Your task to perform on an android device: What's the news in Barbados? Image 0: 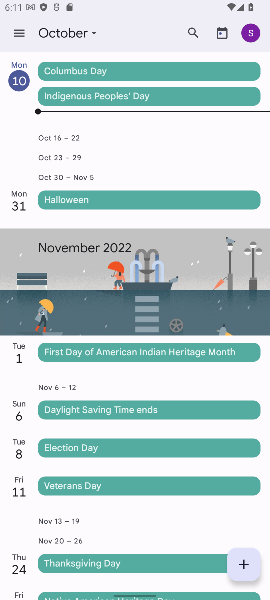
Step 0: click (87, 593)
Your task to perform on an android device: What's the news in Barbados? Image 1: 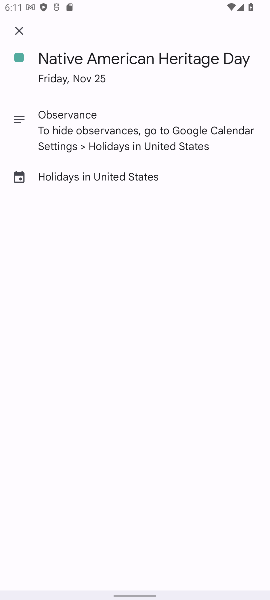
Step 1: press home button
Your task to perform on an android device: What's the news in Barbados? Image 2: 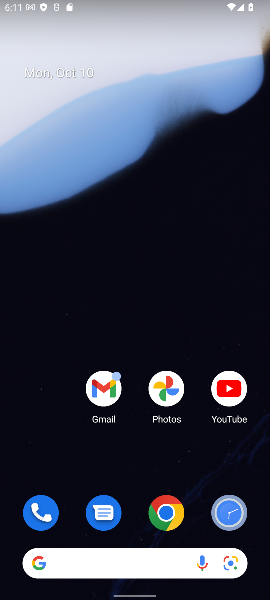
Step 2: click (125, 562)
Your task to perform on an android device: What's the news in Barbados? Image 3: 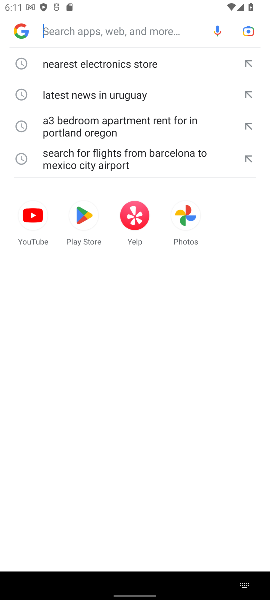
Step 3: type "What's the news in Barbados?"
Your task to perform on an android device: What's the news in Barbados? Image 4: 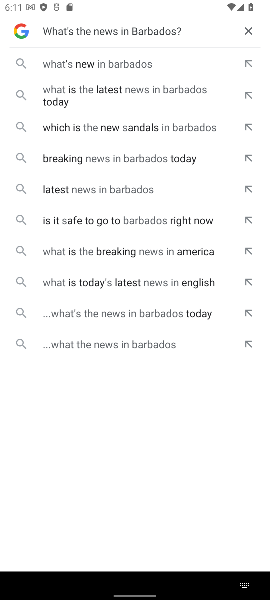
Step 4: click (76, 57)
Your task to perform on an android device: What's the news in Barbados? Image 5: 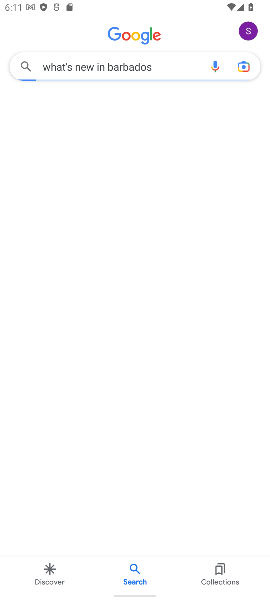
Step 5: task complete